Your task to perform on an android device: Go to Maps Image 0: 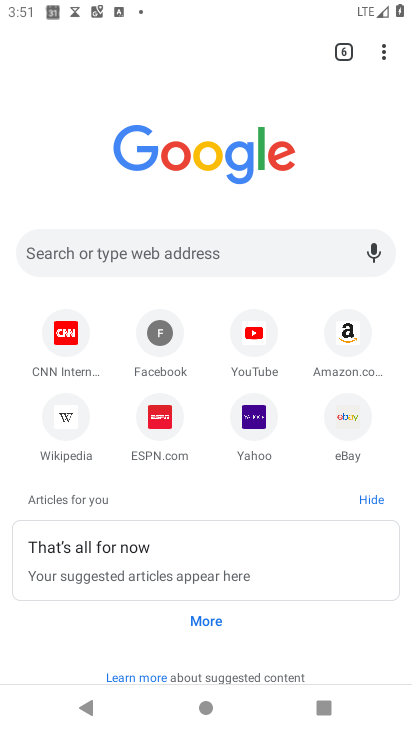
Step 0: press home button
Your task to perform on an android device: Go to Maps Image 1: 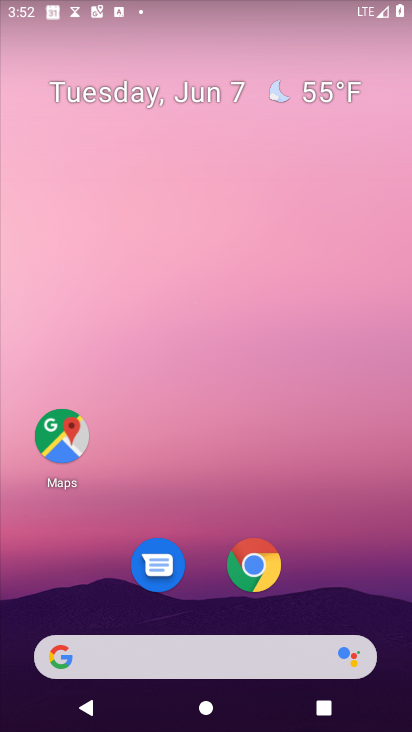
Step 1: drag from (249, 662) to (217, 35)
Your task to perform on an android device: Go to Maps Image 2: 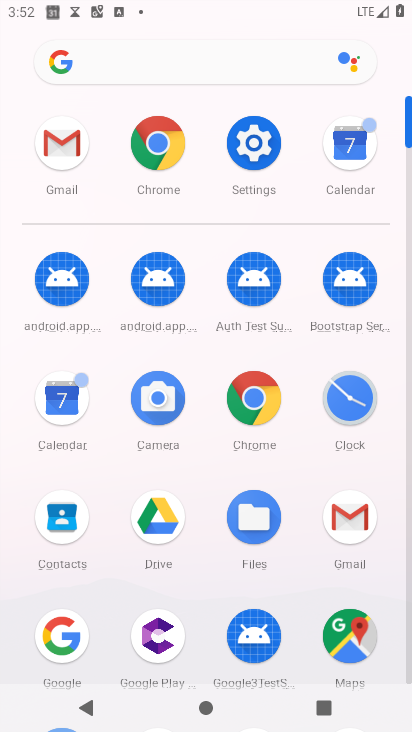
Step 2: click (343, 656)
Your task to perform on an android device: Go to Maps Image 3: 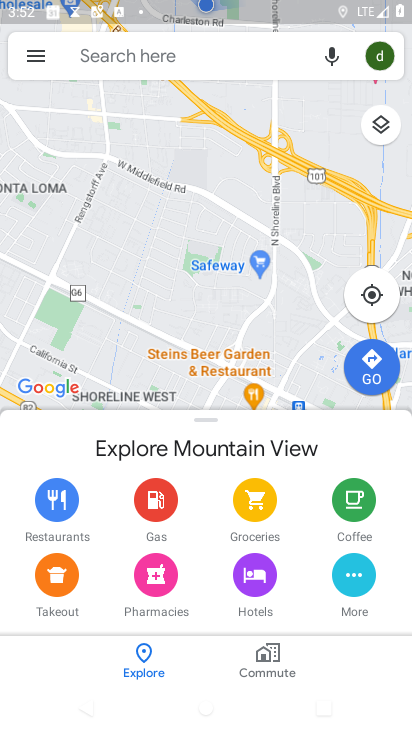
Step 3: task complete